Your task to perform on an android device: open a bookmark in the chrome app Image 0: 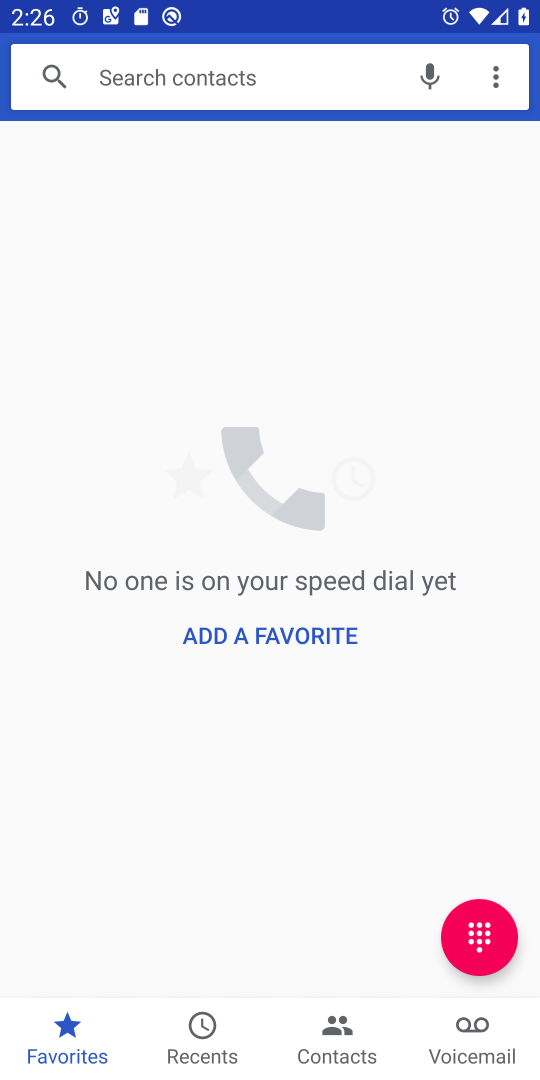
Step 0: press home button
Your task to perform on an android device: open a bookmark in the chrome app Image 1: 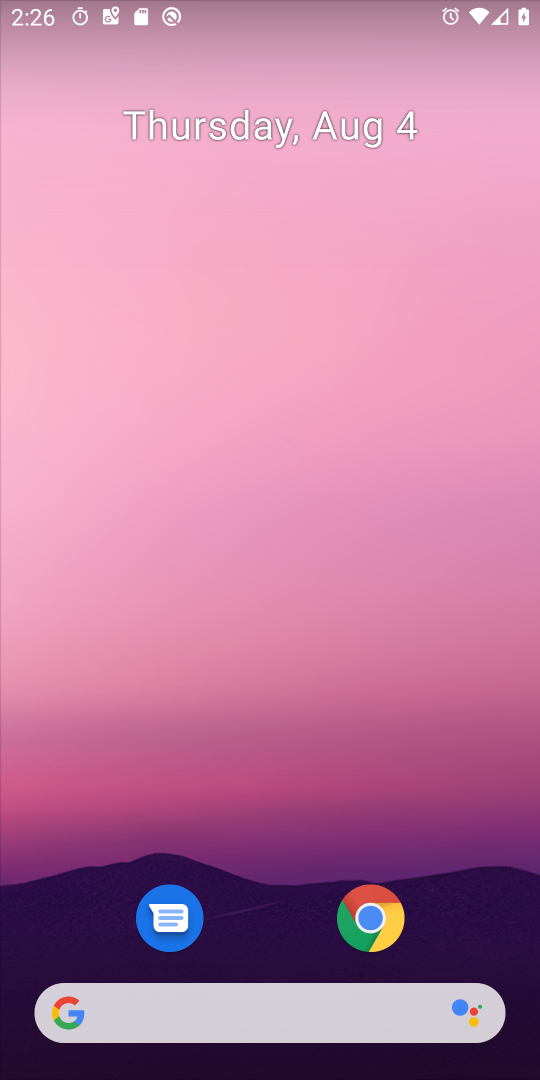
Step 1: click (359, 900)
Your task to perform on an android device: open a bookmark in the chrome app Image 2: 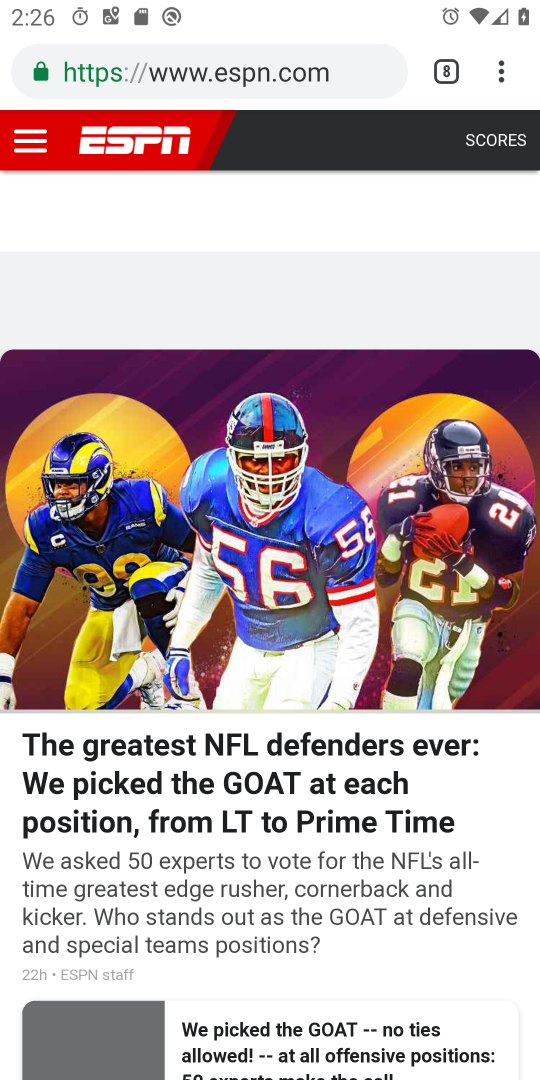
Step 2: click (502, 85)
Your task to perform on an android device: open a bookmark in the chrome app Image 3: 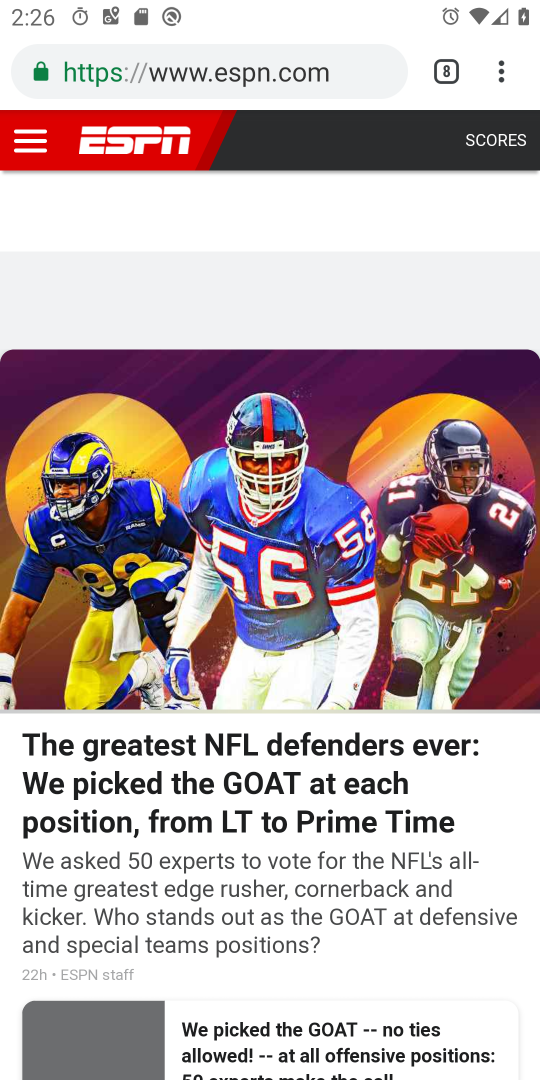
Step 3: click (502, 85)
Your task to perform on an android device: open a bookmark in the chrome app Image 4: 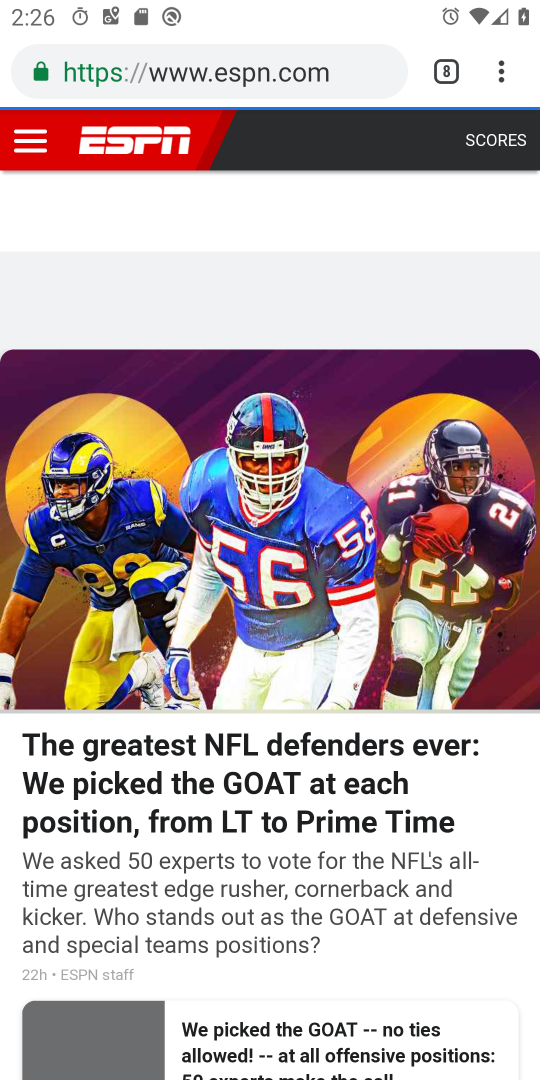
Step 4: drag from (502, 85) to (367, 271)
Your task to perform on an android device: open a bookmark in the chrome app Image 5: 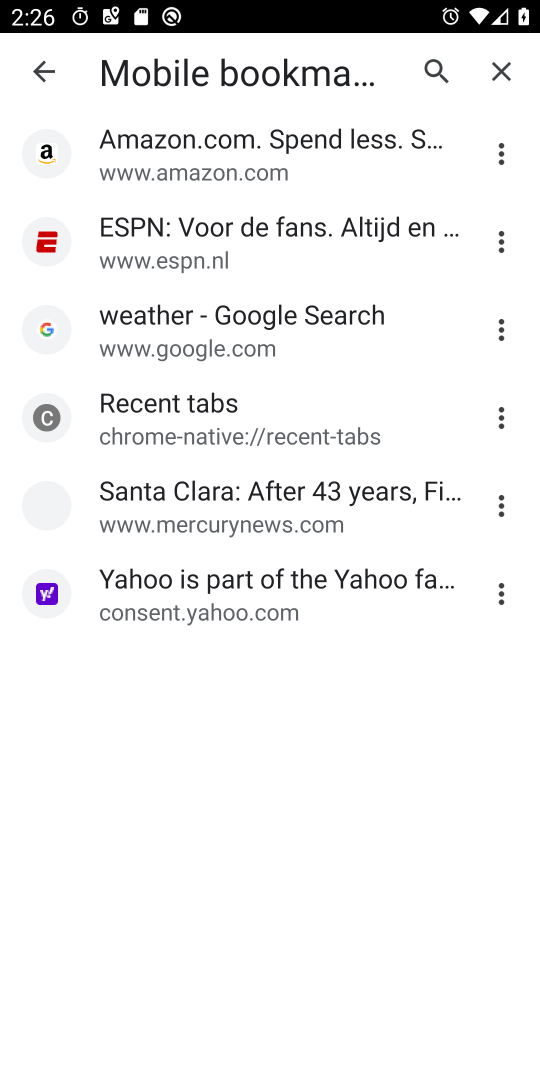
Step 5: click (282, 471)
Your task to perform on an android device: open a bookmark in the chrome app Image 6: 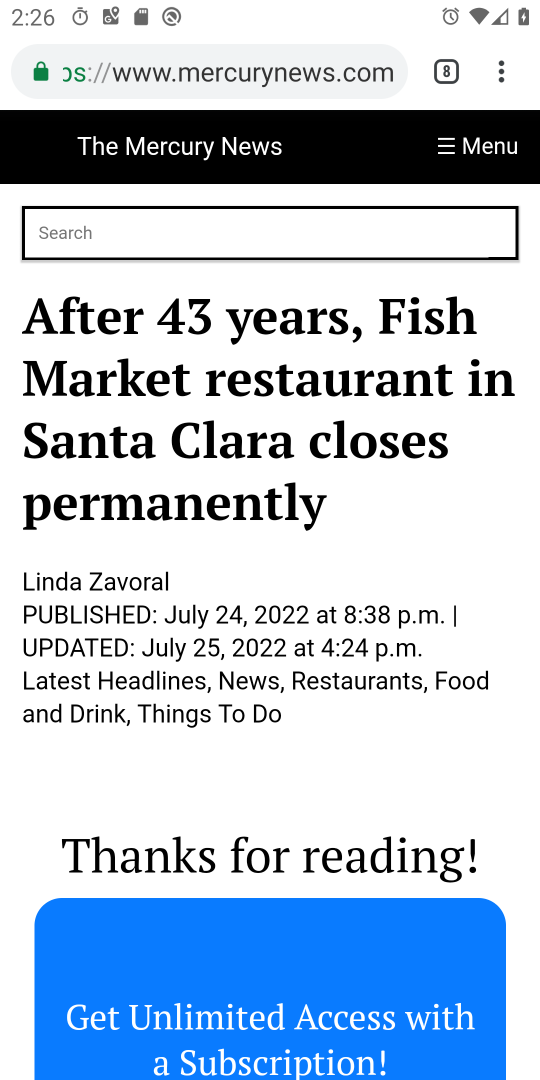
Step 6: task complete